Your task to perform on an android device: snooze an email in the gmail app Image 0: 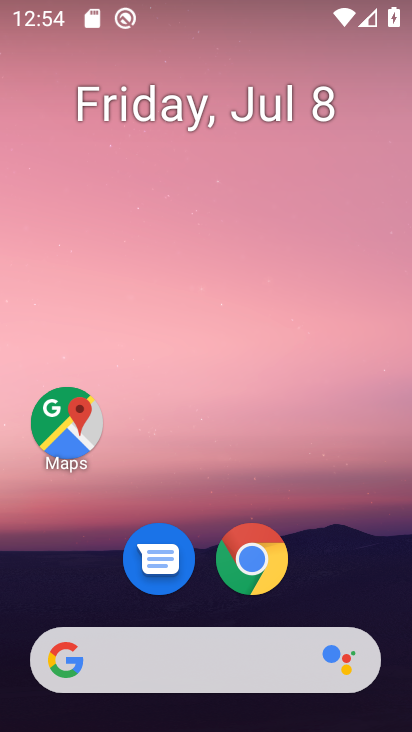
Step 0: drag from (209, 587) to (284, 32)
Your task to perform on an android device: snooze an email in the gmail app Image 1: 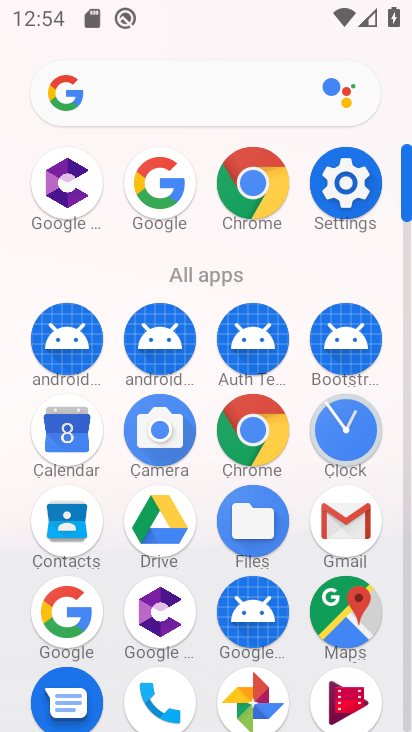
Step 1: click (329, 510)
Your task to perform on an android device: snooze an email in the gmail app Image 2: 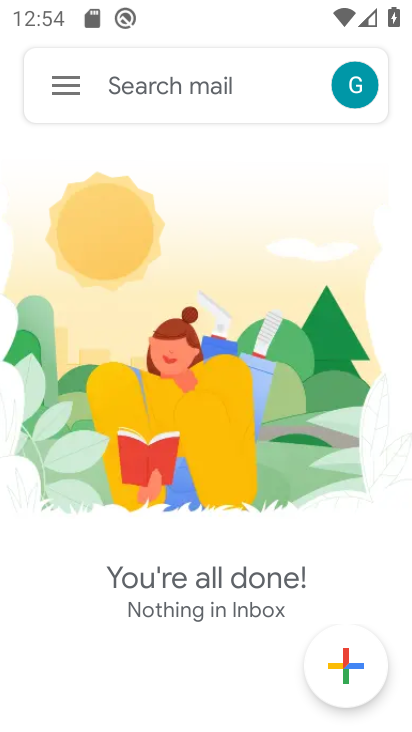
Step 2: task complete